Your task to perform on an android device: Open Yahoo.com Image 0: 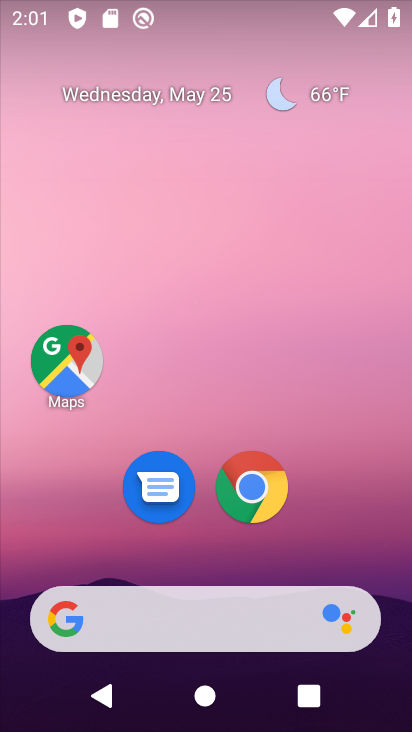
Step 0: click (244, 499)
Your task to perform on an android device: Open Yahoo.com Image 1: 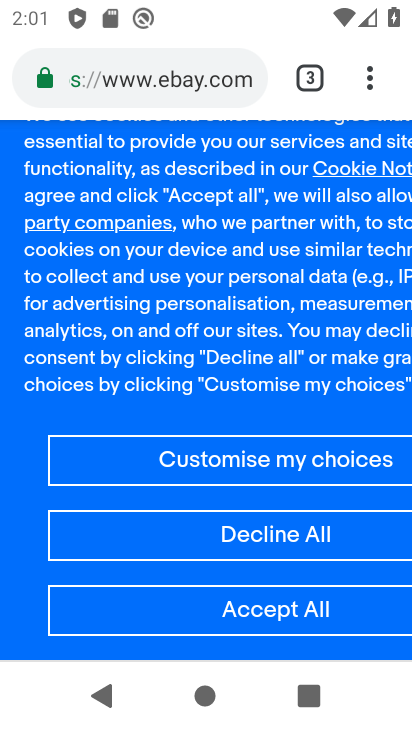
Step 1: press back button
Your task to perform on an android device: Open Yahoo.com Image 2: 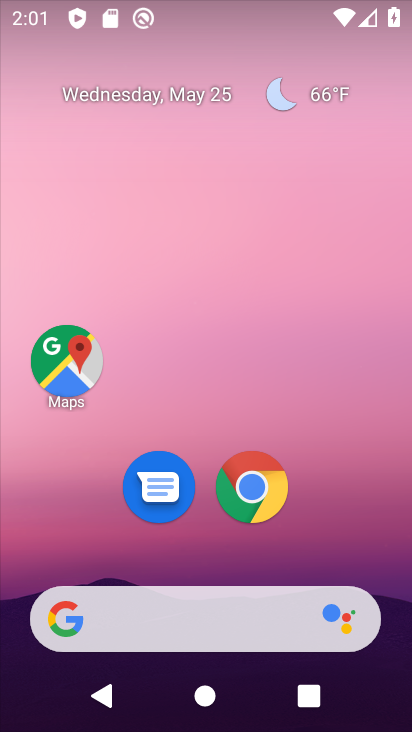
Step 2: click (253, 495)
Your task to perform on an android device: Open Yahoo.com Image 3: 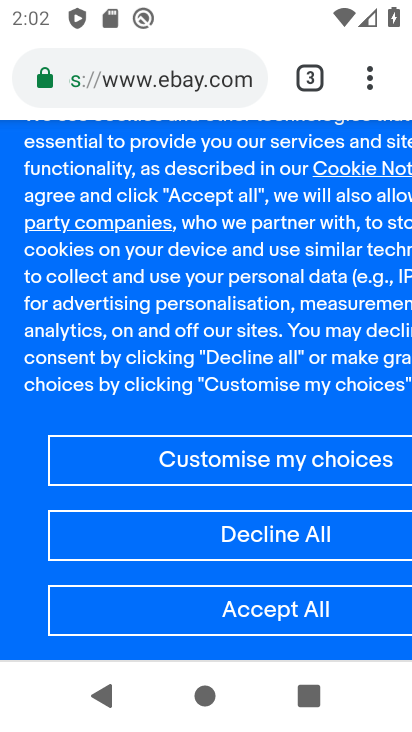
Step 3: click (162, 73)
Your task to perform on an android device: Open Yahoo.com Image 4: 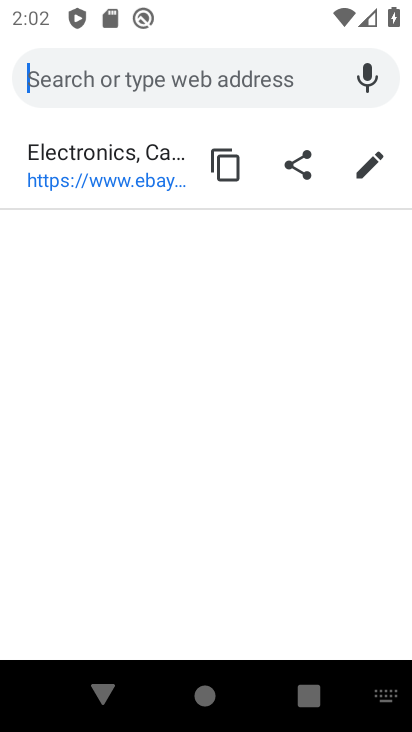
Step 4: type "www.yahoo.com"
Your task to perform on an android device: Open Yahoo.com Image 5: 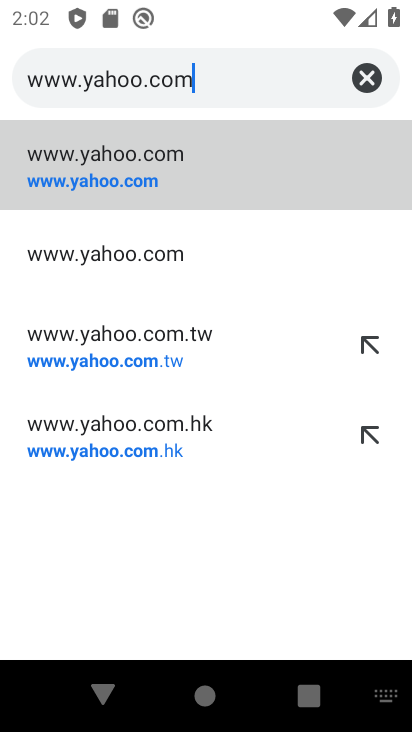
Step 5: click (93, 189)
Your task to perform on an android device: Open Yahoo.com Image 6: 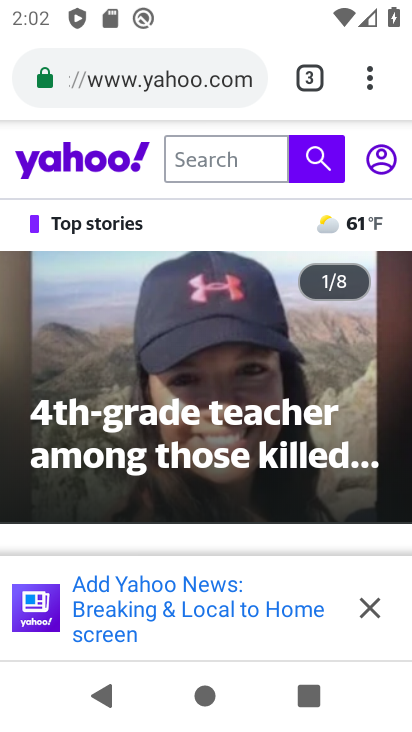
Step 6: task complete